Your task to perform on an android device: delete location history Image 0: 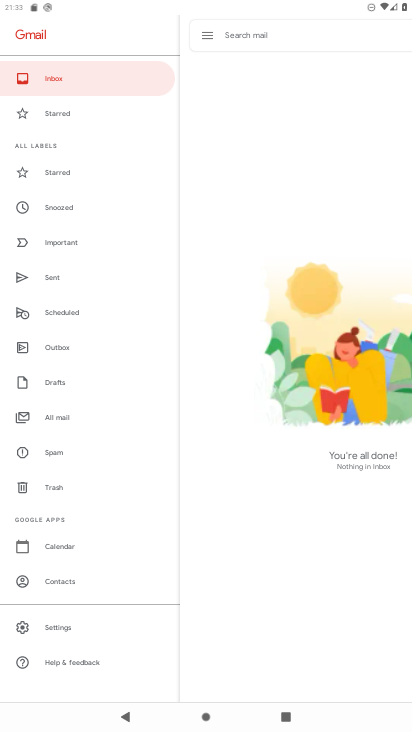
Step 0: drag from (305, 594) to (284, 138)
Your task to perform on an android device: delete location history Image 1: 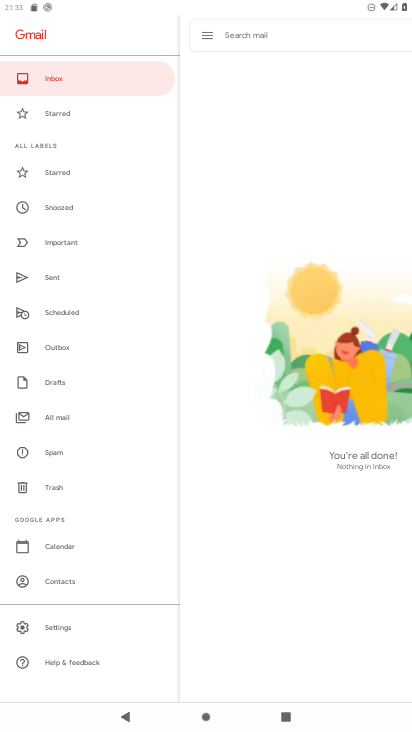
Step 1: press home button
Your task to perform on an android device: delete location history Image 2: 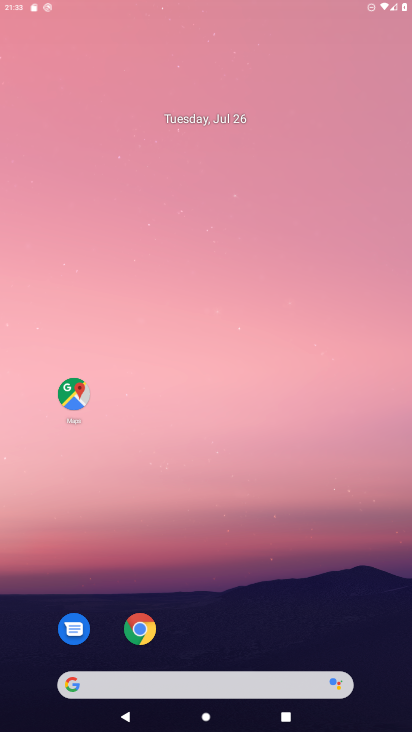
Step 2: drag from (326, 594) to (318, 90)
Your task to perform on an android device: delete location history Image 3: 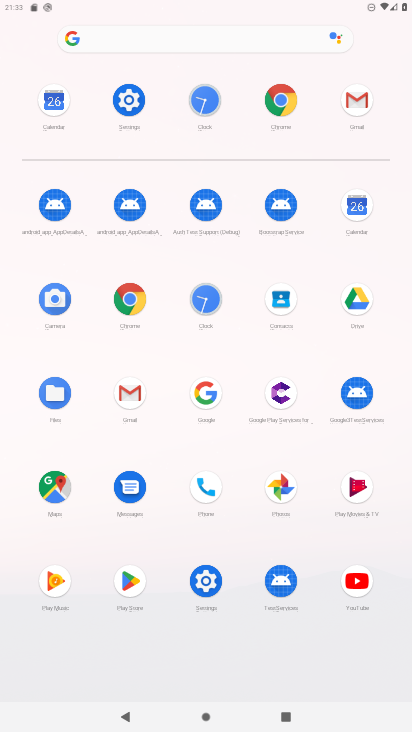
Step 3: click (61, 477)
Your task to perform on an android device: delete location history Image 4: 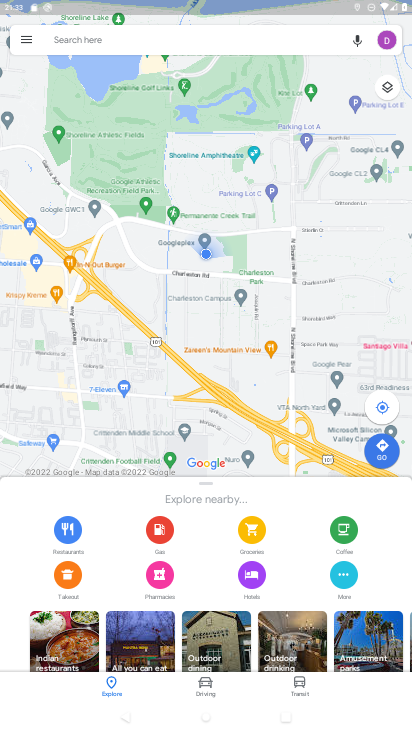
Step 4: click (25, 42)
Your task to perform on an android device: delete location history Image 5: 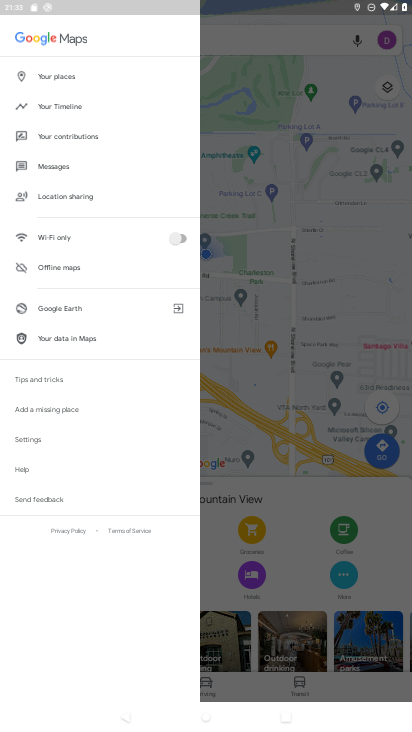
Step 5: click (69, 101)
Your task to perform on an android device: delete location history Image 6: 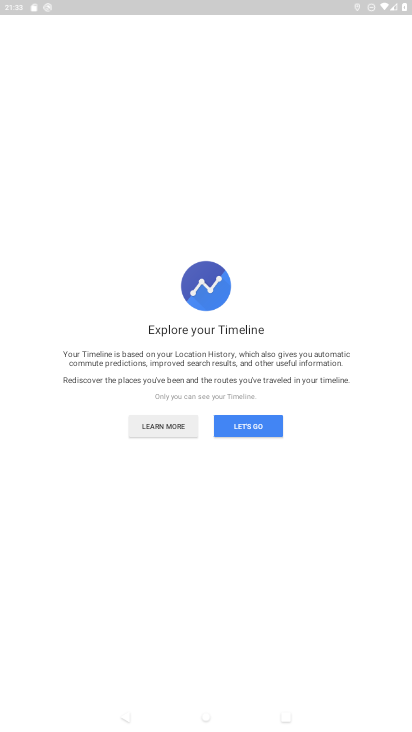
Step 6: click (261, 427)
Your task to perform on an android device: delete location history Image 7: 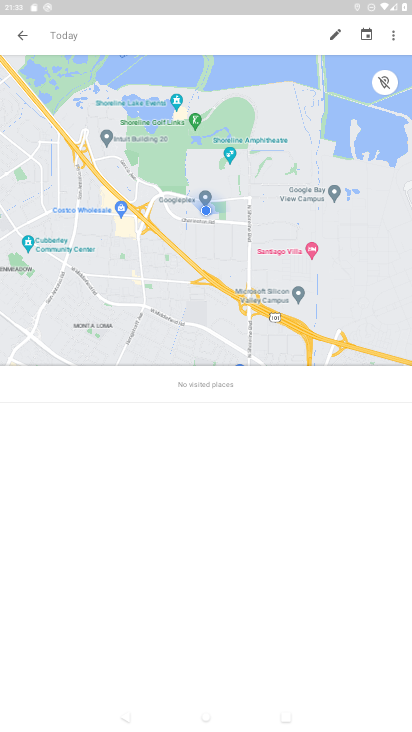
Step 7: click (391, 35)
Your task to perform on an android device: delete location history Image 8: 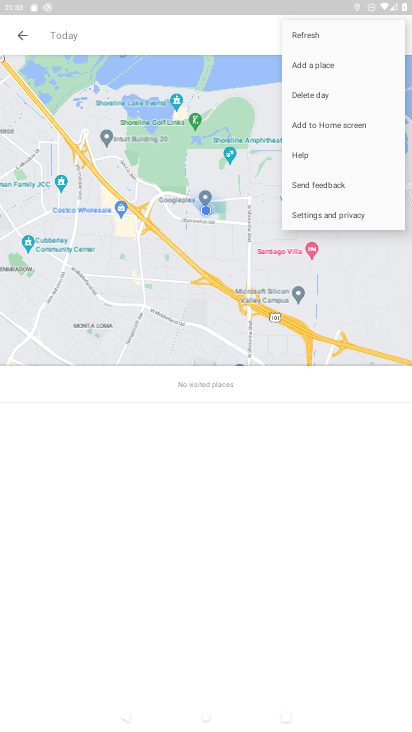
Step 8: click (298, 212)
Your task to perform on an android device: delete location history Image 9: 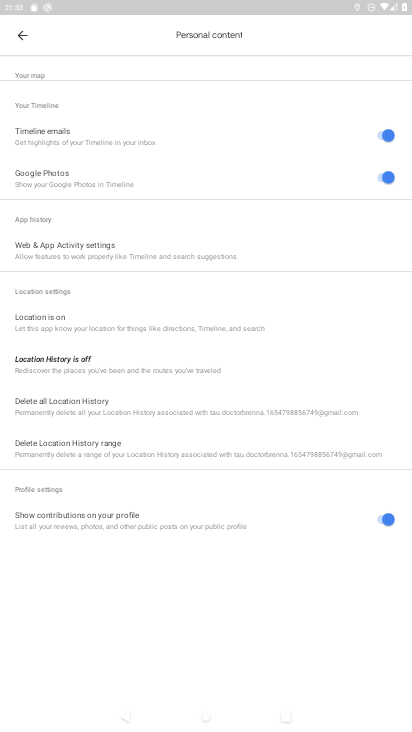
Step 9: click (98, 361)
Your task to perform on an android device: delete location history Image 10: 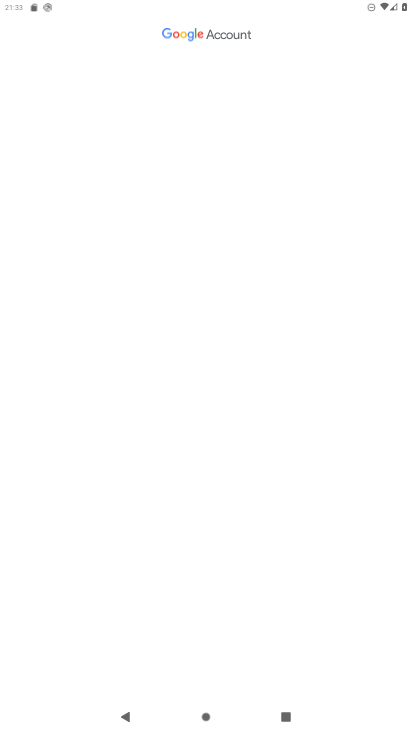
Step 10: press back button
Your task to perform on an android device: delete location history Image 11: 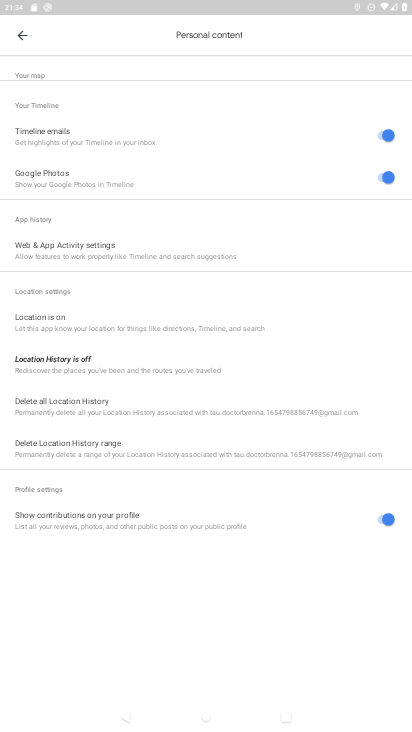
Step 11: click (81, 406)
Your task to perform on an android device: delete location history Image 12: 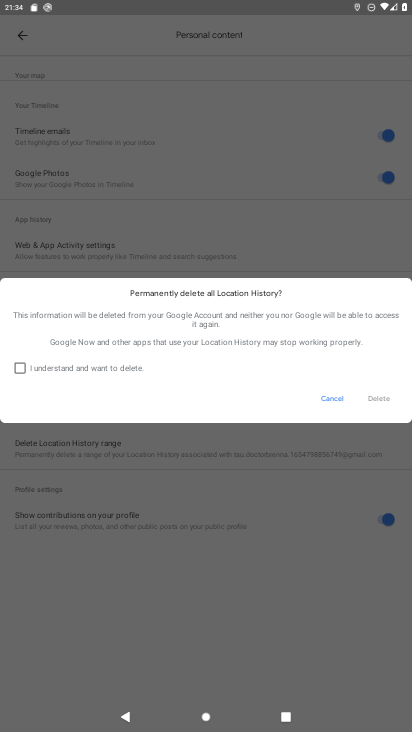
Step 12: click (131, 362)
Your task to perform on an android device: delete location history Image 13: 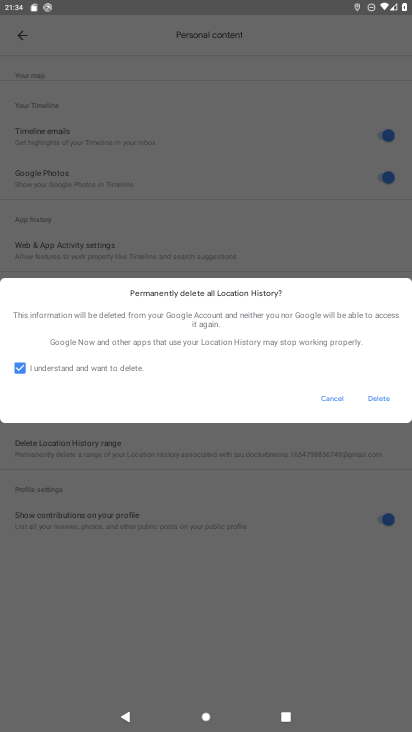
Step 13: click (385, 395)
Your task to perform on an android device: delete location history Image 14: 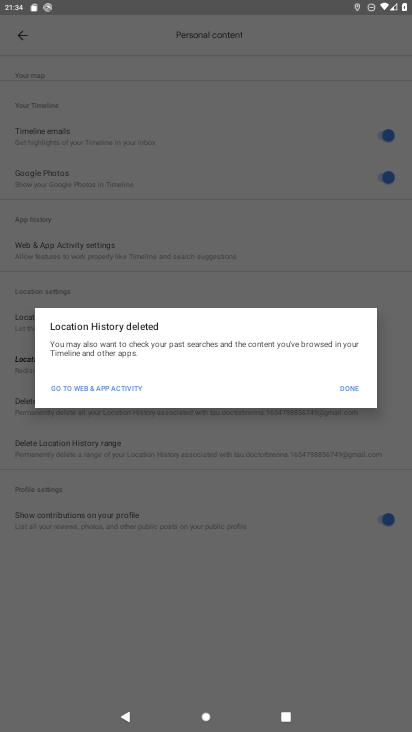
Step 14: click (341, 391)
Your task to perform on an android device: delete location history Image 15: 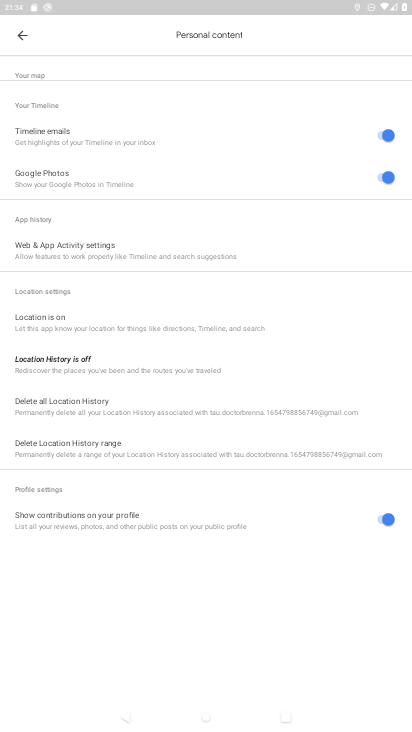
Step 15: click (93, 407)
Your task to perform on an android device: delete location history Image 16: 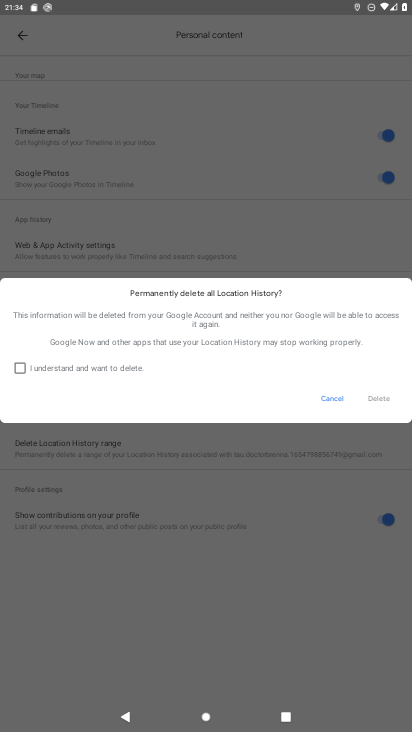
Step 16: click (114, 366)
Your task to perform on an android device: delete location history Image 17: 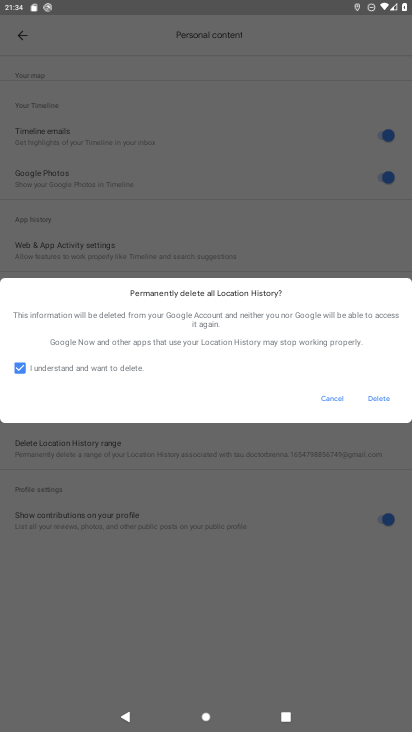
Step 17: click (379, 399)
Your task to perform on an android device: delete location history Image 18: 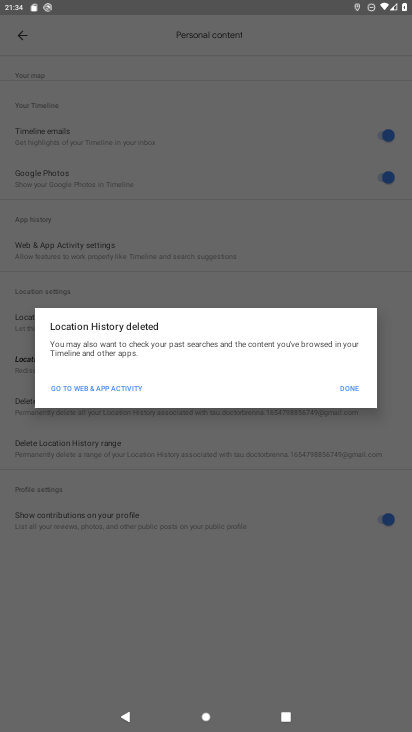
Step 18: click (337, 390)
Your task to perform on an android device: delete location history Image 19: 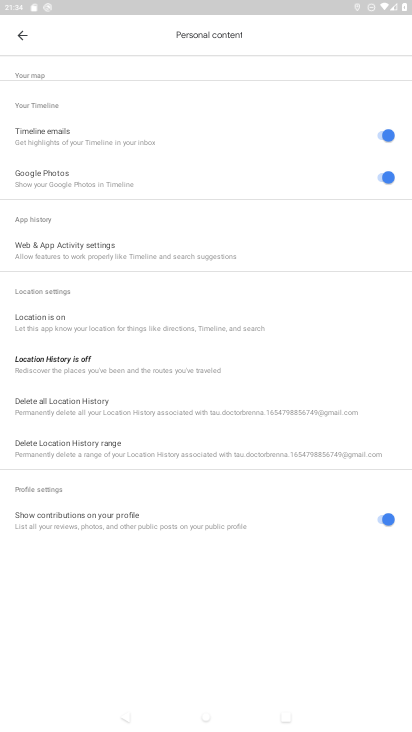
Step 19: task complete